Your task to perform on an android device: toggle airplane mode Image 0: 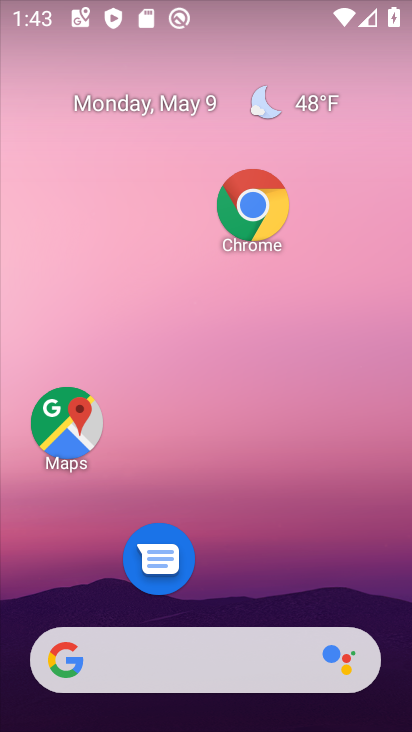
Step 0: drag from (258, 580) to (318, 251)
Your task to perform on an android device: toggle airplane mode Image 1: 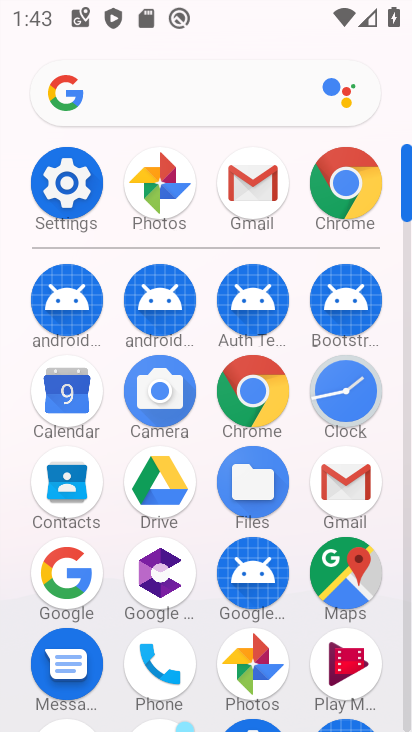
Step 1: click (75, 192)
Your task to perform on an android device: toggle airplane mode Image 2: 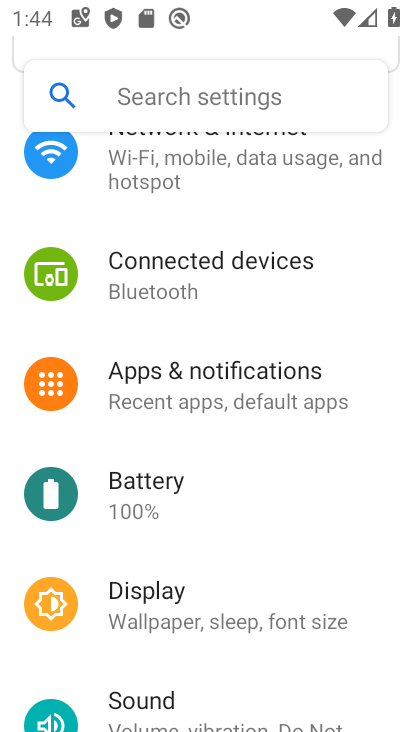
Step 2: drag from (207, 257) to (232, 641)
Your task to perform on an android device: toggle airplane mode Image 3: 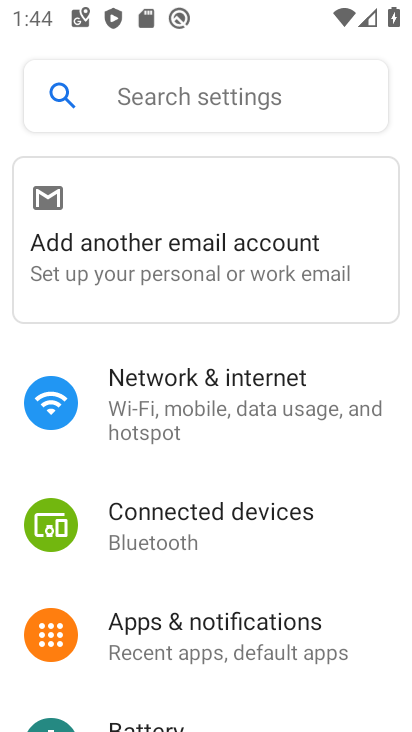
Step 3: click (246, 391)
Your task to perform on an android device: toggle airplane mode Image 4: 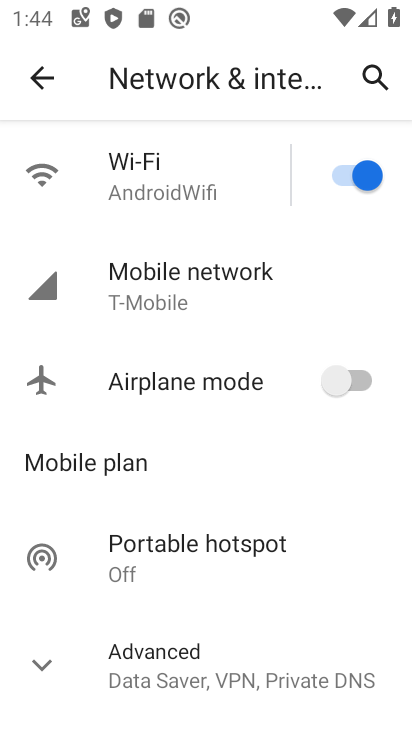
Step 4: click (341, 179)
Your task to perform on an android device: toggle airplane mode Image 5: 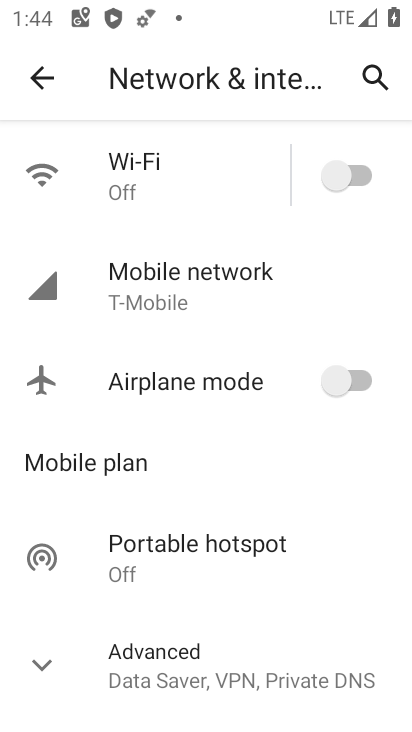
Step 5: task complete